Your task to perform on an android device: turn off location history Image 0: 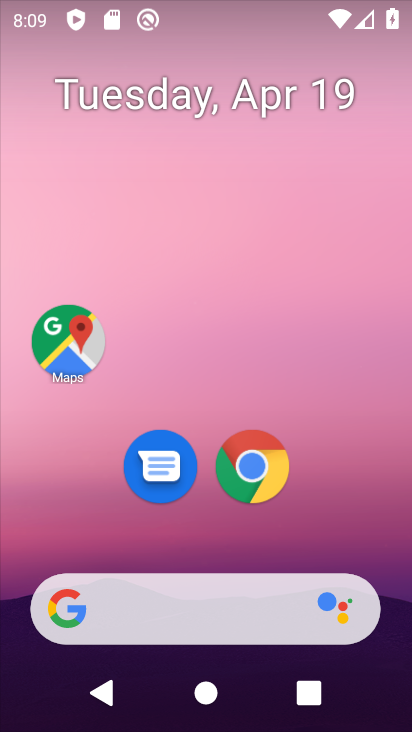
Step 0: drag from (313, 393) to (263, 30)
Your task to perform on an android device: turn off location history Image 1: 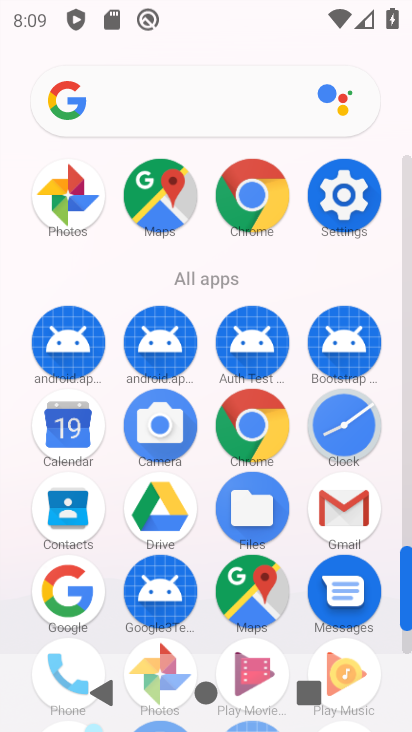
Step 1: click (341, 179)
Your task to perform on an android device: turn off location history Image 2: 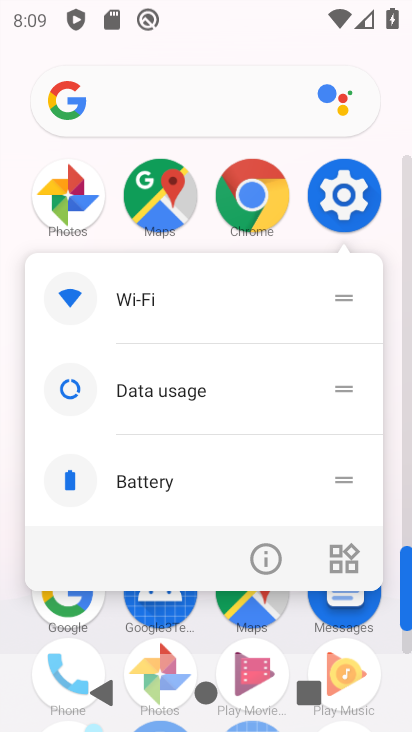
Step 2: click (342, 178)
Your task to perform on an android device: turn off location history Image 3: 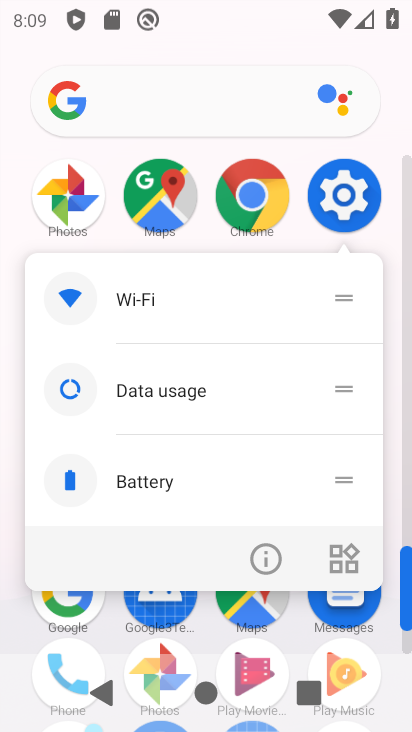
Step 3: click (342, 178)
Your task to perform on an android device: turn off location history Image 4: 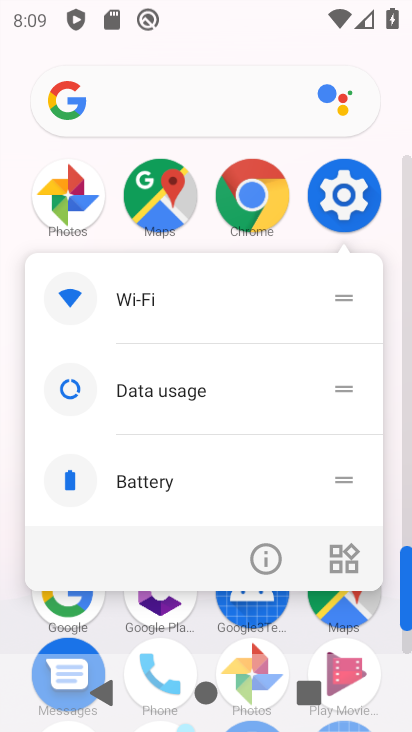
Step 4: click (342, 180)
Your task to perform on an android device: turn off location history Image 5: 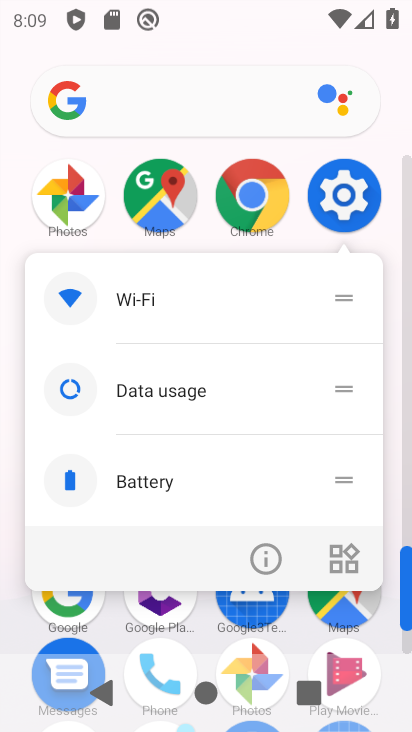
Step 5: click (341, 203)
Your task to perform on an android device: turn off location history Image 6: 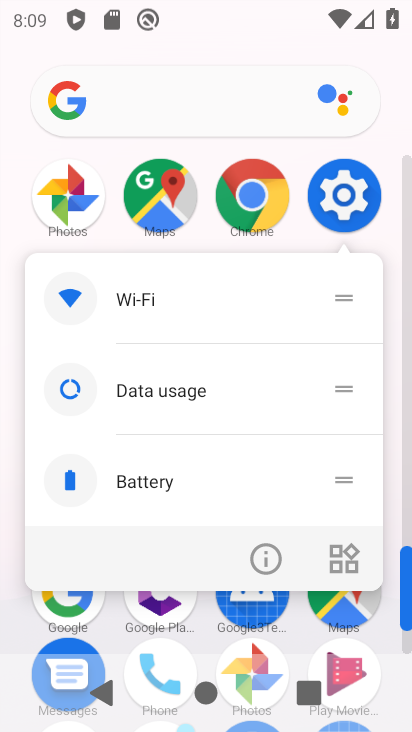
Step 6: click (341, 203)
Your task to perform on an android device: turn off location history Image 7: 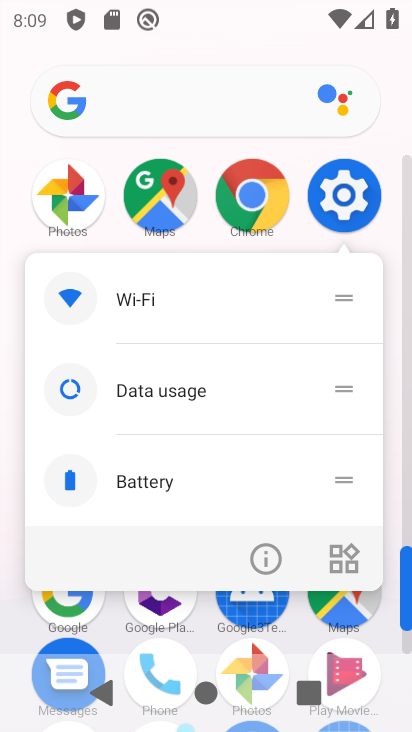
Step 7: click (339, 205)
Your task to perform on an android device: turn off location history Image 8: 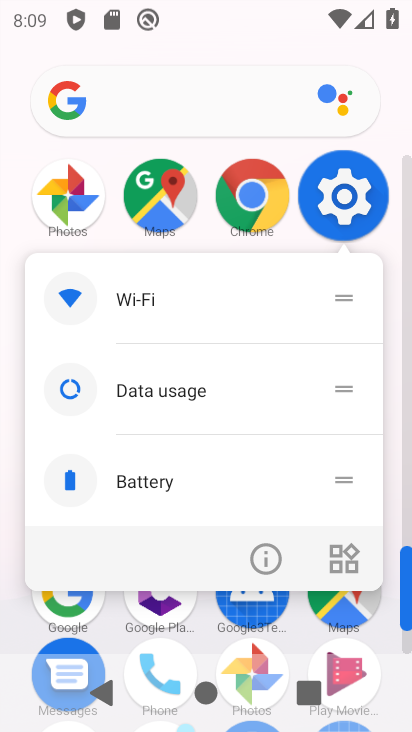
Step 8: click (339, 205)
Your task to perform on an android device: turn off location history Image 9: 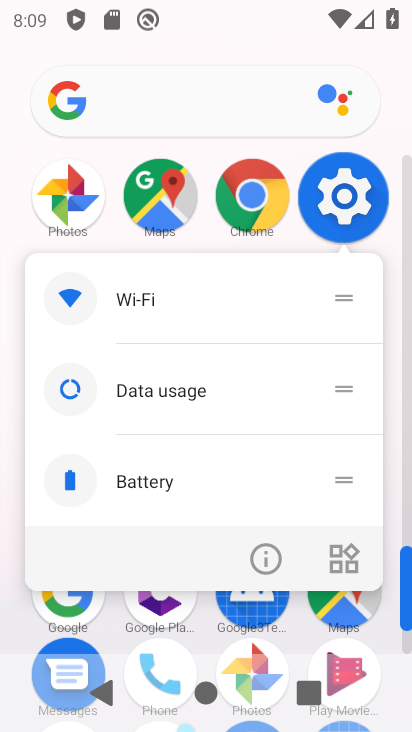
Step 9: click (338, 208)
Your task to perform on an android device: turn off location history Image 10: 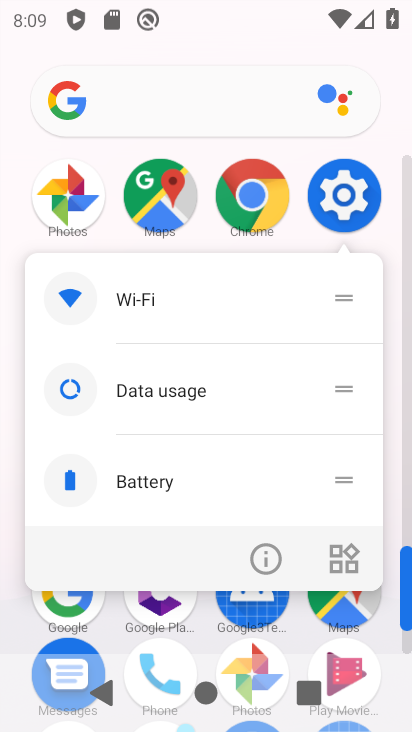
Step 10: click (338, 209)
Your task to perform on an android device: turn off location history Image 11: 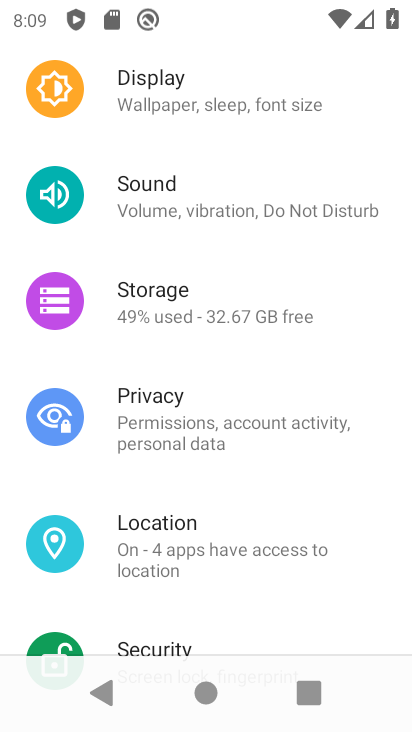
Step 11: drag from (213, 523) to (218, 245)
Your task to perform on an android device: turn off location history Image 12: 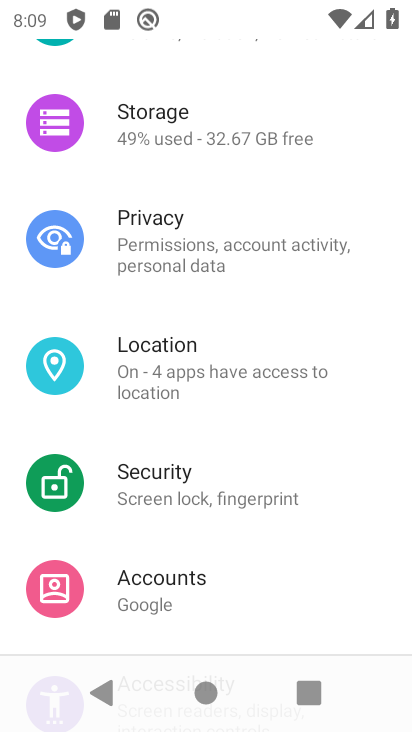
Step 12: click (197, 368)
Your task to perform on an android device: turn off location history Image 13: 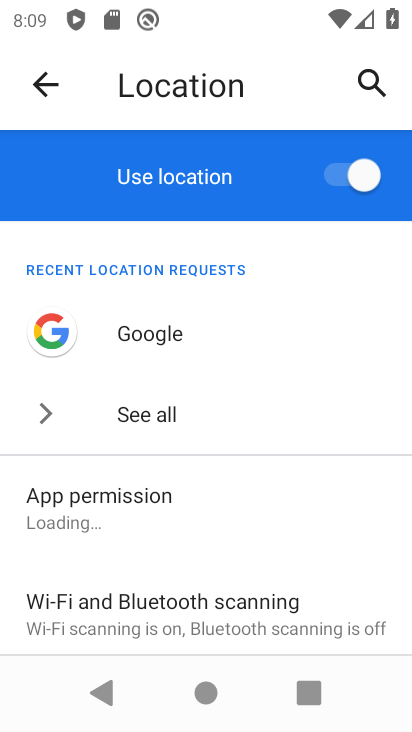
Step 13: drag from (190, 549) to (270, 224)
Your task to perform on an android device: turn off location history Image 14: 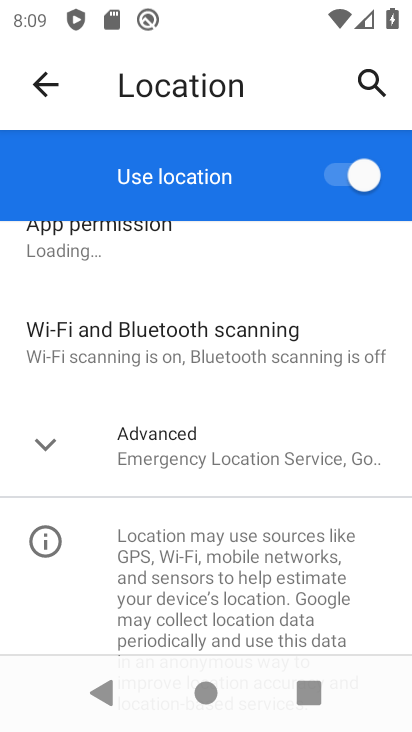
Step 14: click (223, 445)
Your task to perform on an android device: turn off location history Image 15: 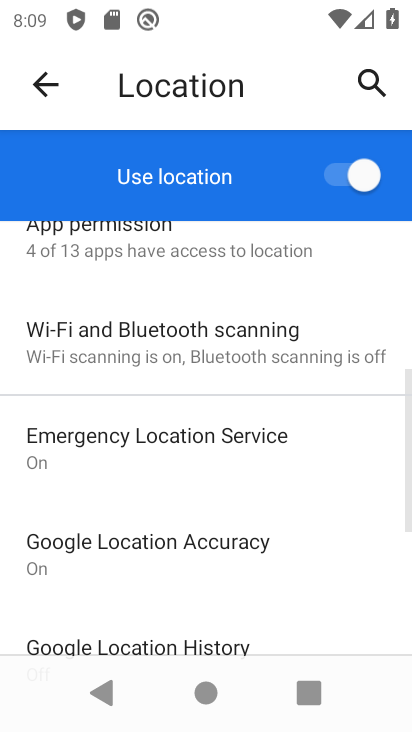
Step 15: drag from (201, 591) to (229, 423)
Your task to perform on an android device: turn off location history Image 16: 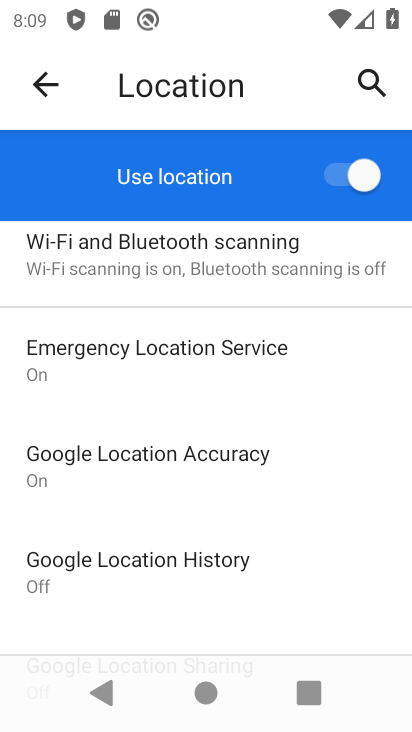
Step 16: click (147, 575)
Your task to perform on an android device: turn off location history Image 17: 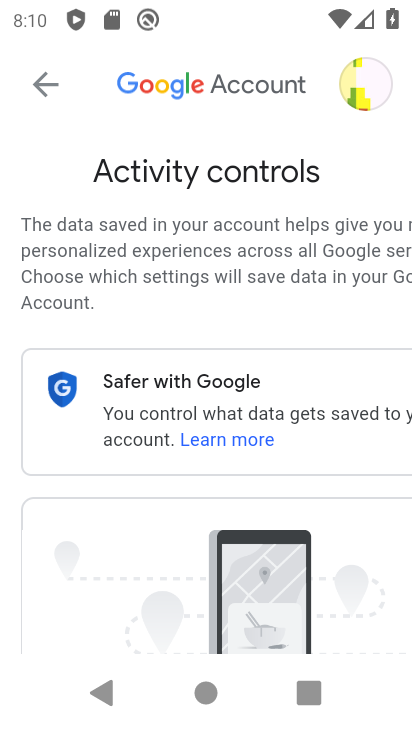
Step 17: task complete